Your task to perform on an android device: Go to network settings Image 0: 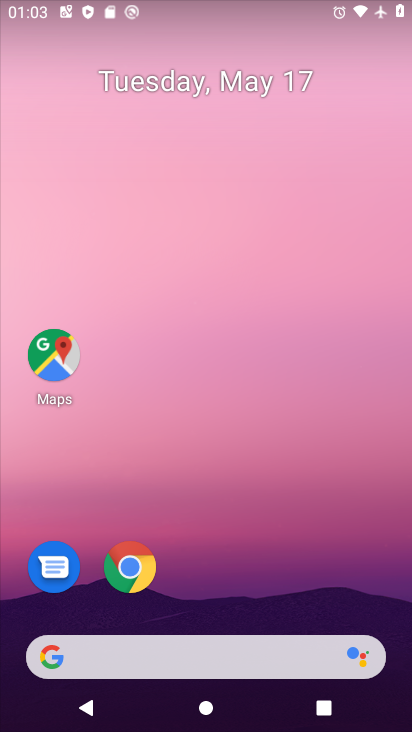
Step 0: drag from (229, 547) to (153, 161)
Your task to perform on an android device: Go to network settings Image 1: 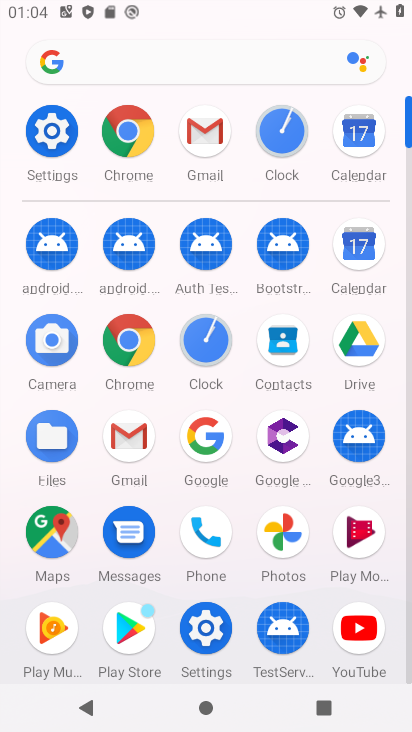
Step 1: click (52, 131)
Your task to perform on an android device: Go to network settings Image 2: 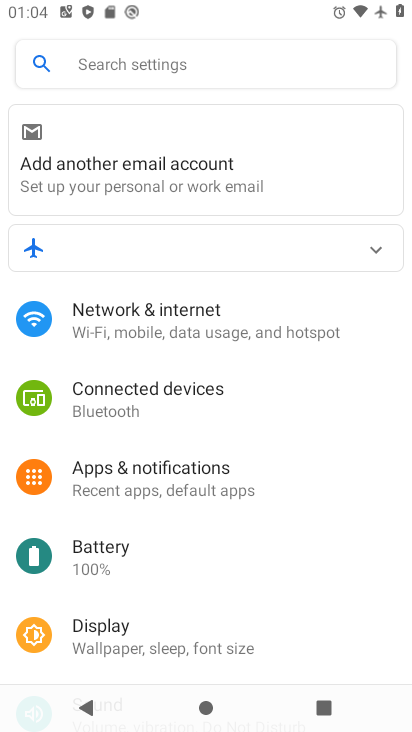
Step 2: click (151, 306)
Your task to perform on an android device: Go to network settings Image 3: 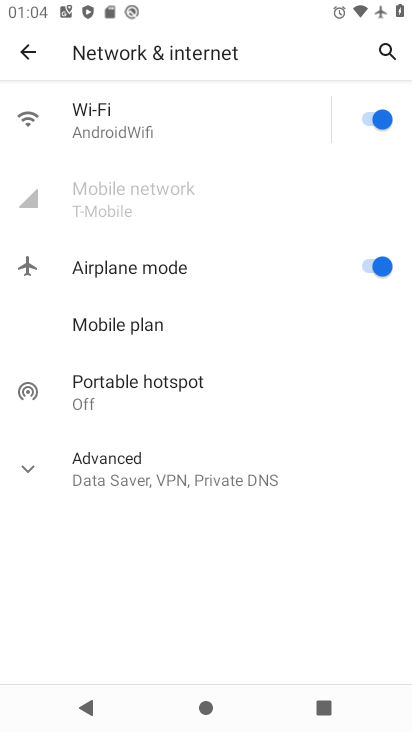
Step 3: task complete